Your task to perform on an android device: Go to internet settings Image 0: 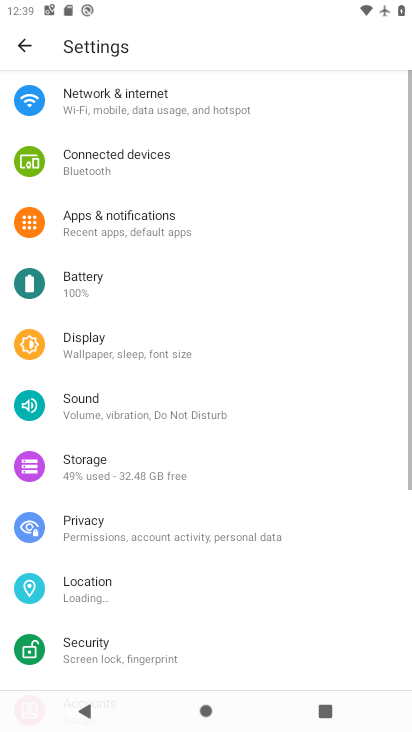
Step 0: click (103, 101)
Your task to perform on an android device: Go to internet settings Image 1: 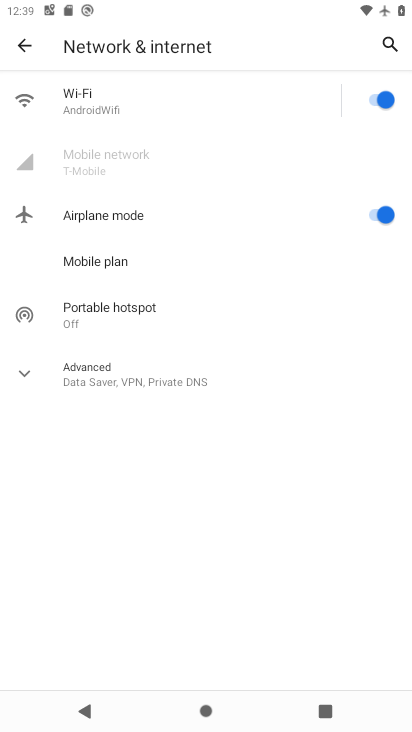
Step 1: click (86, 372)
Your task to perform on an android device: Go to internet settings Image 2: 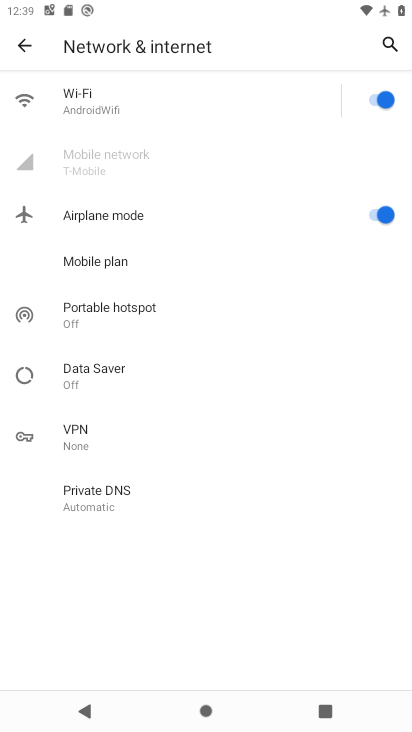
Step 2: task complete